Your task to perform on an android device: Go to privacy settings Image 0: 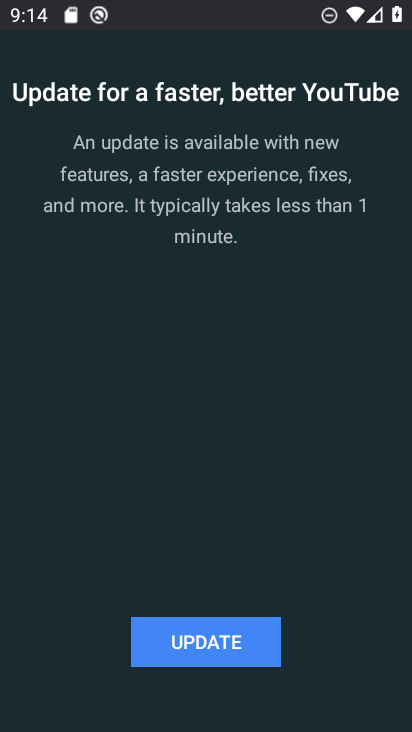
Step 0: press home button
Your task to perform on an android device: Go to privacy settings Image 1: 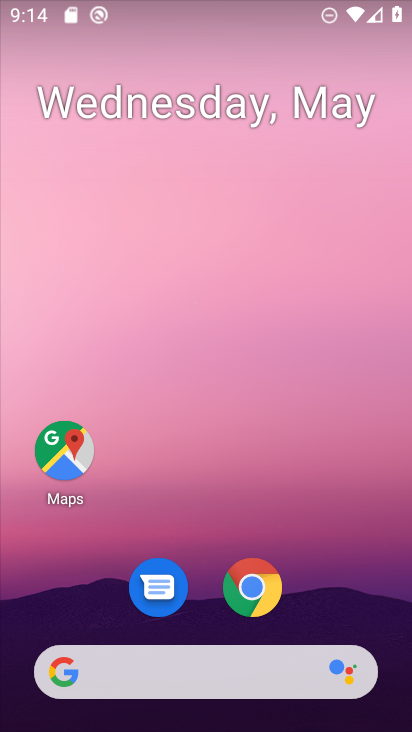
Step 1: drag from (190, 726) to (190, 231)
Your task to perform on an android device: Go to privacy settings Image 2: 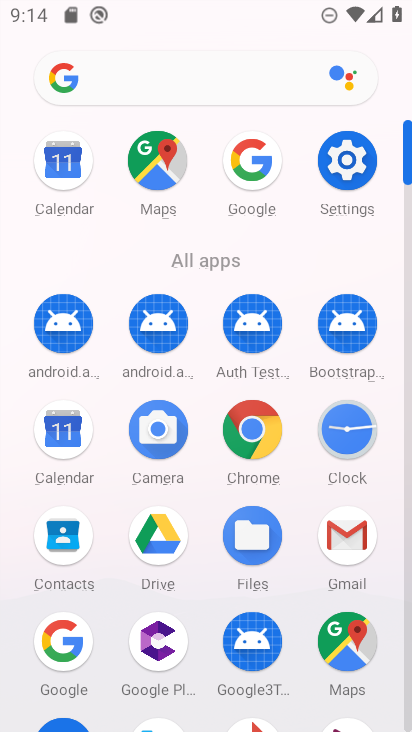
Step 2: click (346, 163)
Your task to perform on an android device: Go to privacy settings Image 3: 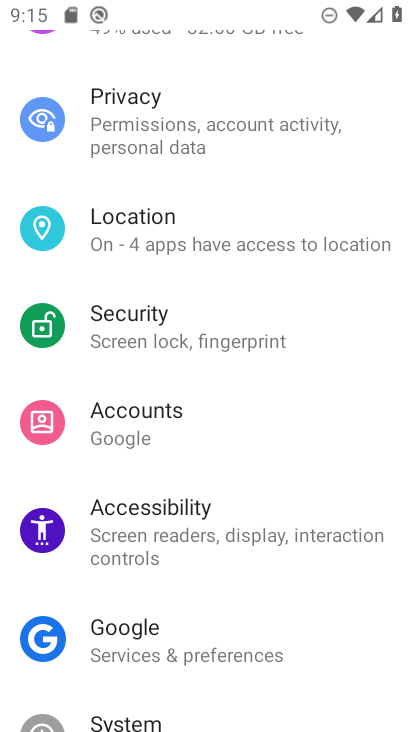
Step 3: click (153, 134)
Your task to perform on an android device: Go to privacy settings Image 4: 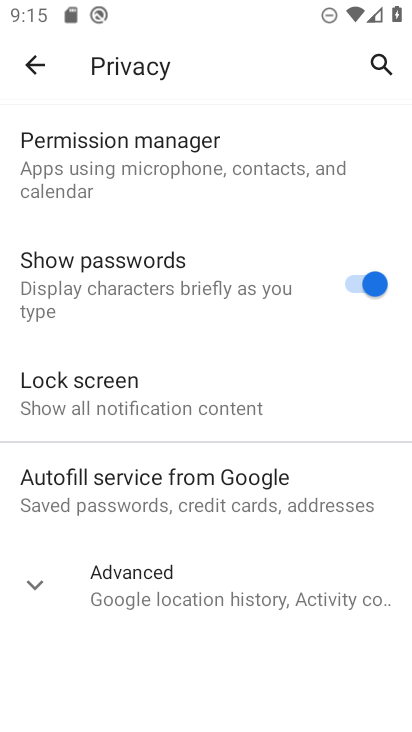
Step 4: task complete